Your task to perform on an android device: Open Reddit.com Image 0: 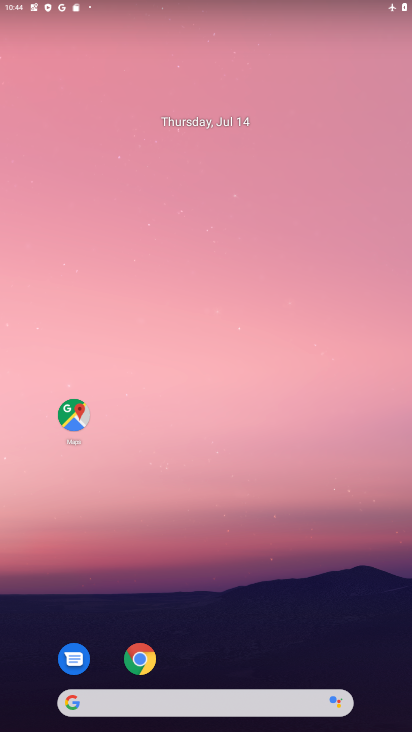
Step 0: drag from (346, 618) to (314, 117)
Your task to perform on an android device: Open Reddit.com Image 1: 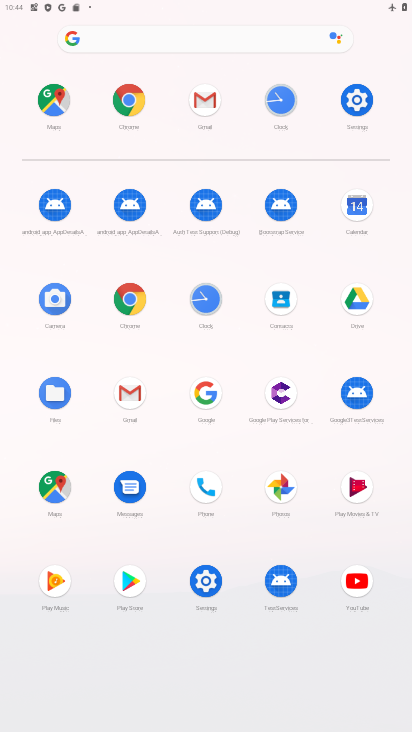
Step 1: click (129, 296)
Your task to perform on an android device: Open Reddit.com Image 2: 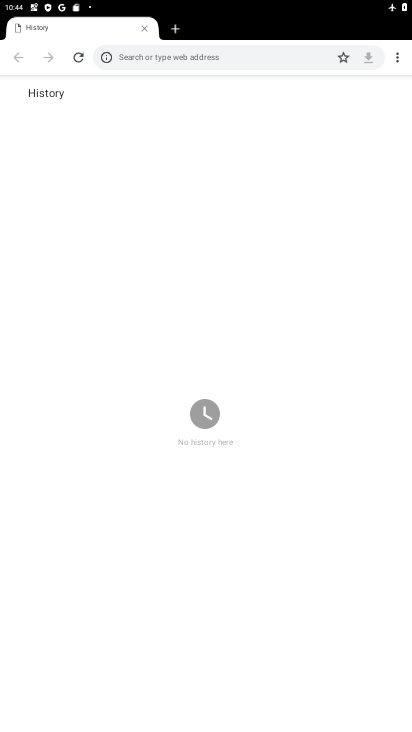
Step 2: click (199, 63)
Your task to perform on an android device: Open Reddit.com Image 3: 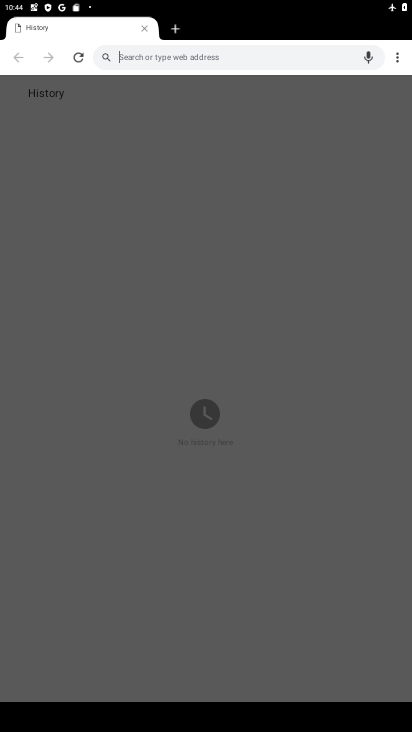
Step 3: type "reddit.com"
Your task to perform on an android device: Open Reddit.com Image 4: 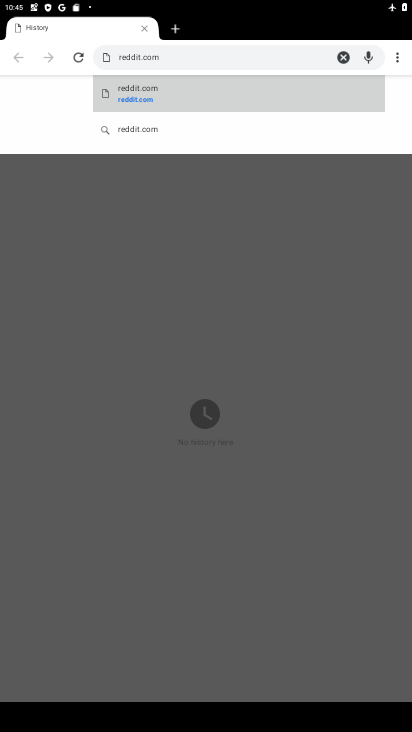
Step 4: click (147, 86)
Your task to perform on an android device: Open Reddit.com Image 5: 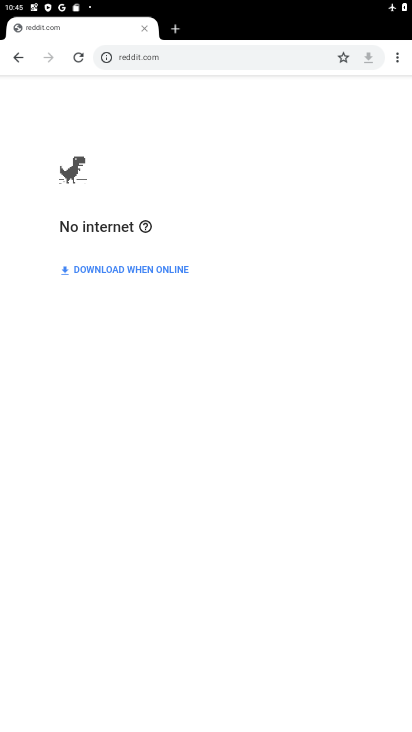
Step 5: task complete